Your task to perform on an android device: What's on my calendar today? Image 0: 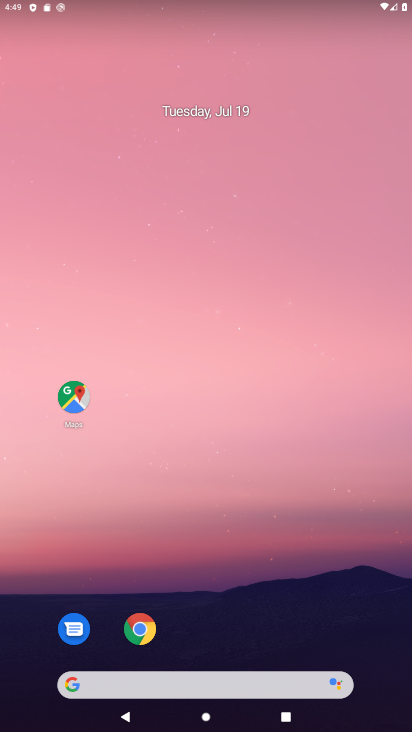
Step 0: press home button
Your task to perform on an android device: What's on my calendar today? Image 1: 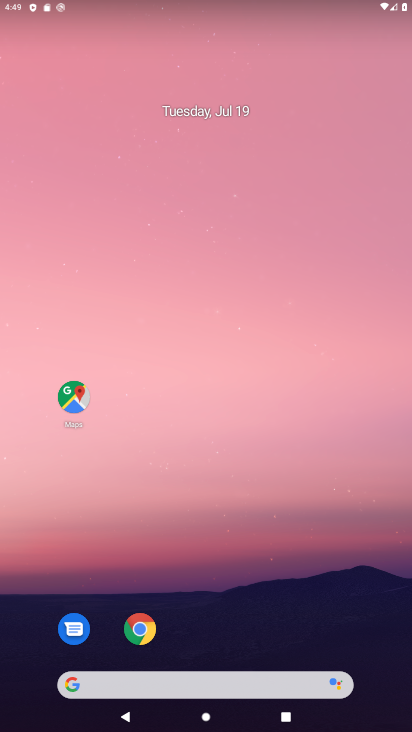
Step 1: drag from (267, 543) to (311, 138)
Your task to perform on an android device: What's on my calendar today? Image 2: 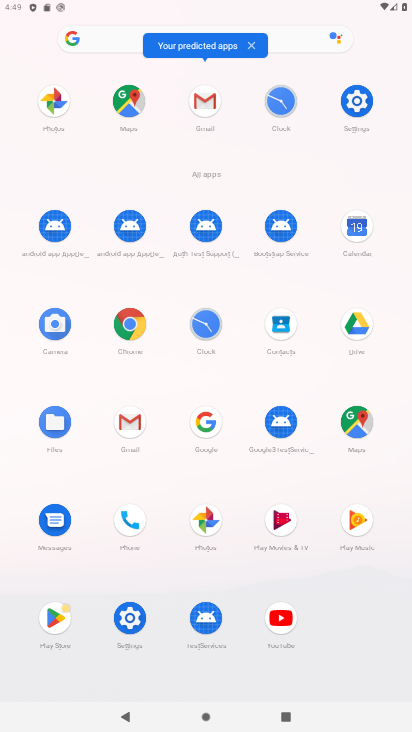
Step 2: click (353, 223)
Your task to perform on an android device: What's on my calendar today? Image 3: 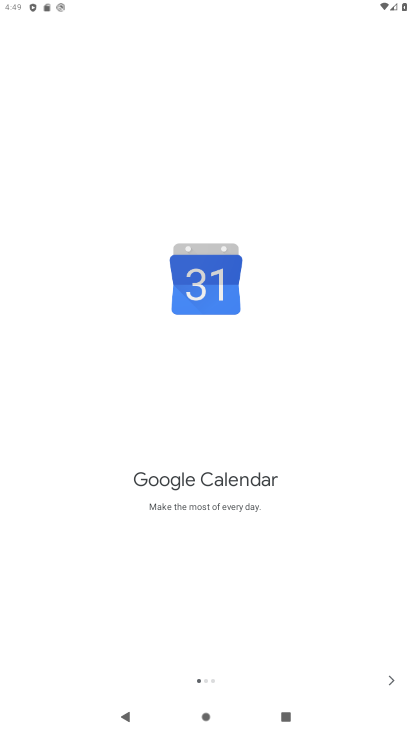
Step 3: click (385, 679)
Your task to perform on an android device: What's on my calendar today? Image 4: 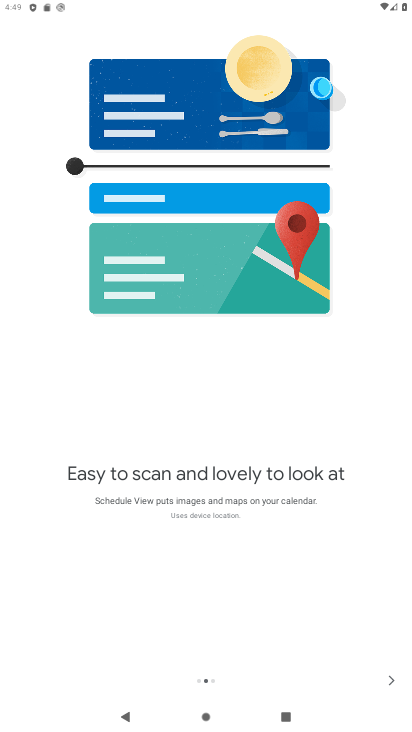
Step 4: click (385, 679)
Your task to perform on an android device: What's on my calendar today? Image 5: 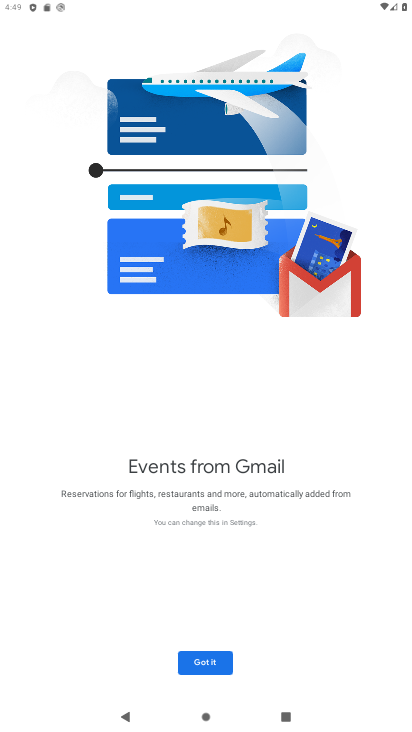
Step 5: click (202, 669)
Your task to perform on an android device: What's on my calendar today? Image 6: 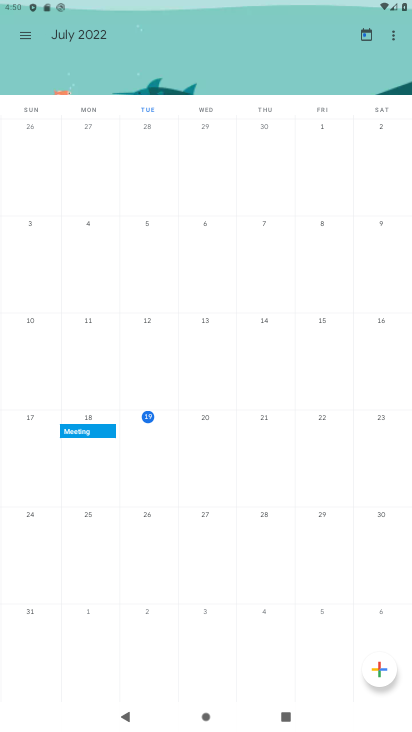
Step 6: click (147, 417)
Your task to perform on an android device: What's on my calendar today? Image 7: 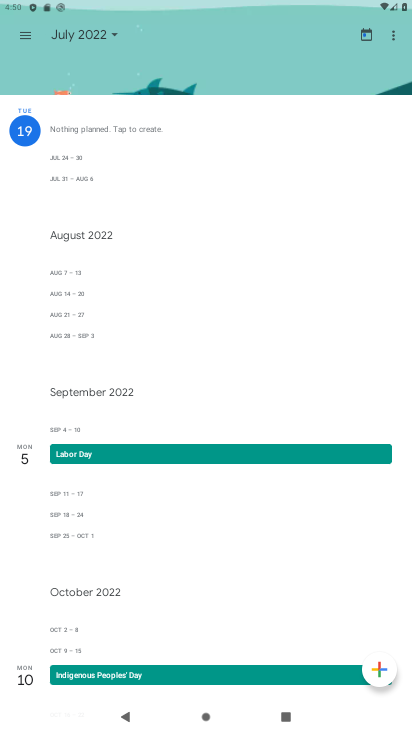
Step 7: task complete